Your task to perform on an android device: move an email to a new category in the gmail app Image 0: 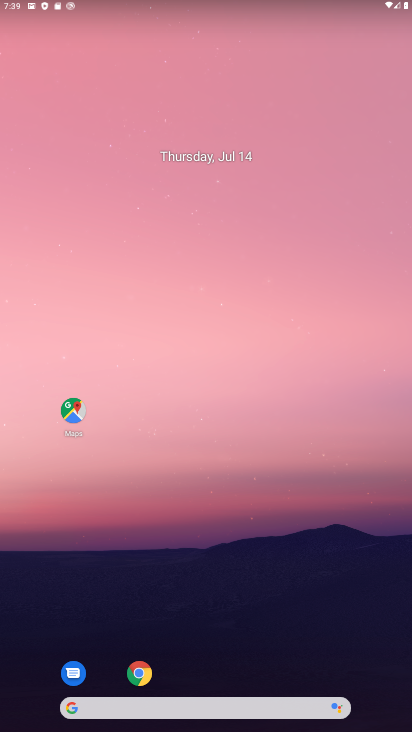
Step 0: click (261, 140)
Your task to perform on an android device: move an email to a new category in the gmail app Image 1: 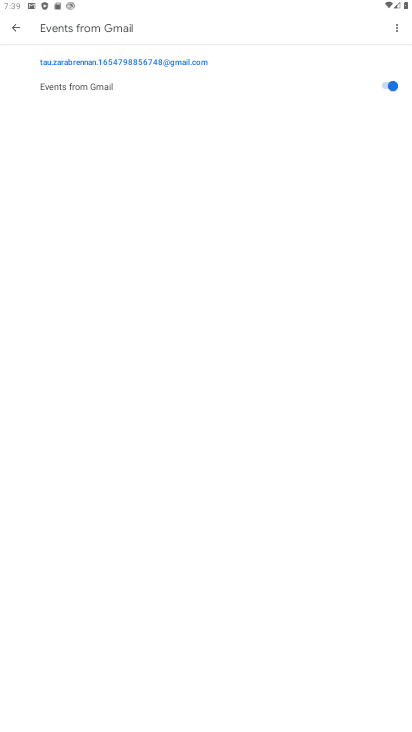
Step 1: drag from (258, 504) to (239, 187)
Your task to perform on an android device: move an email to a new category in the gmail app Image 2: 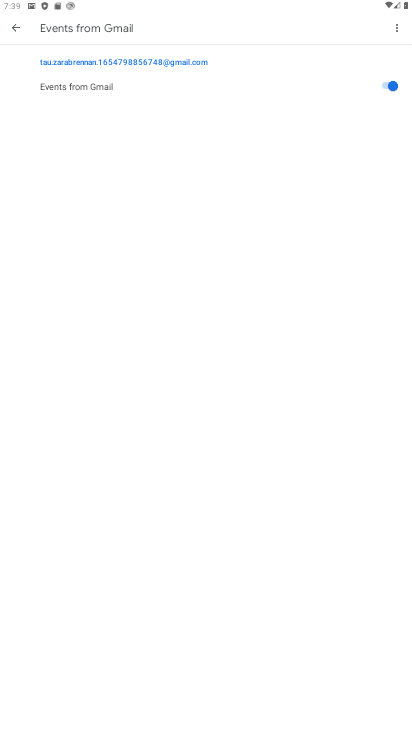
Step 2: drag from (152, 599) to (211, 178)
Your task to perform on an android device: move an email to a new category in the gmail app Image 3: 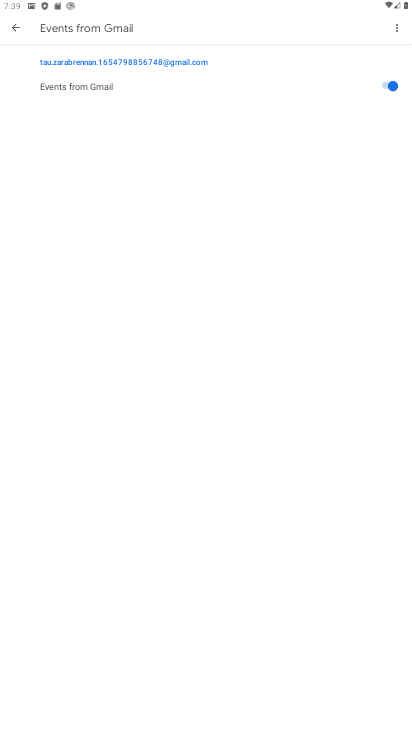
Step 3: drag from (183, 513) to (290, 176)
Your task to perform on an android device: move an email to a new category in the gmail app Image 4: 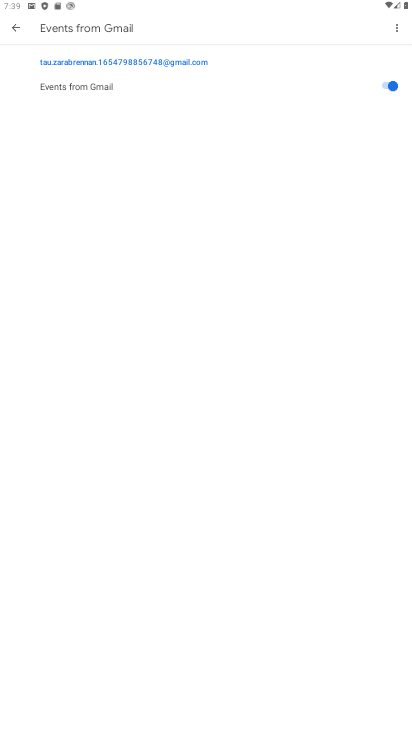
Step 4: press home button
Your task to perform on an android device: move an email to a new category in the gmail app Image 5: 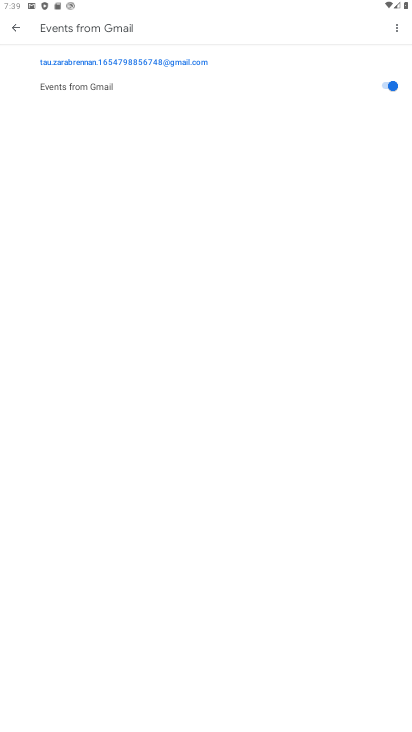
Step 5: drag from (79, 545) to (106, 1)
Your task to perform on an android device: move an email to a new category in the gmail app Image 6: 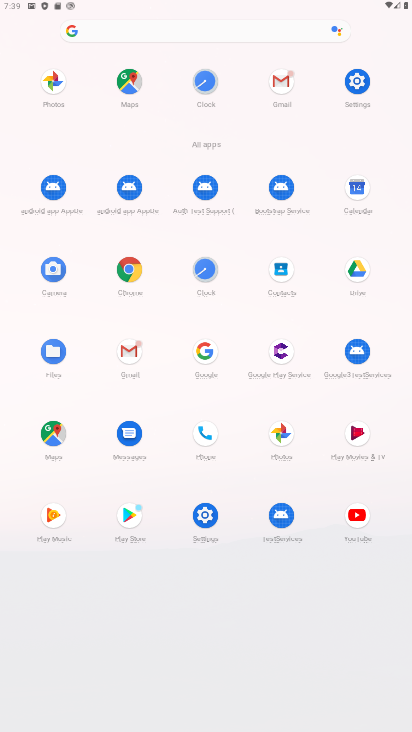
Step 6: click (126, 357)
Your task to perform on an android device: move an email to a new category in the gmail app Image 7: 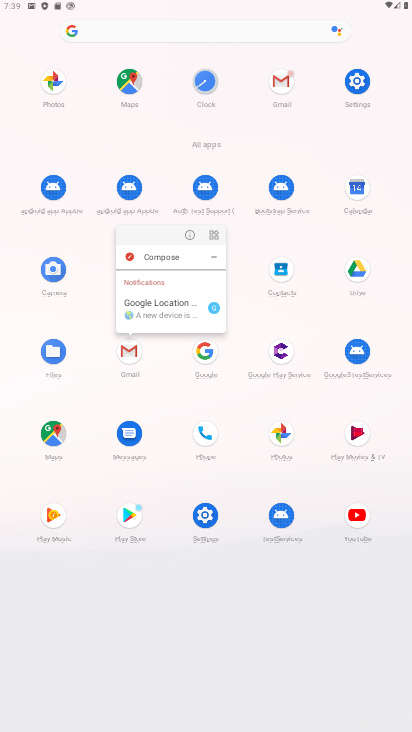
Step 7: click (192, 233)
Your task to perform on an android device: move an email to a new category in the gmail app Image 8: 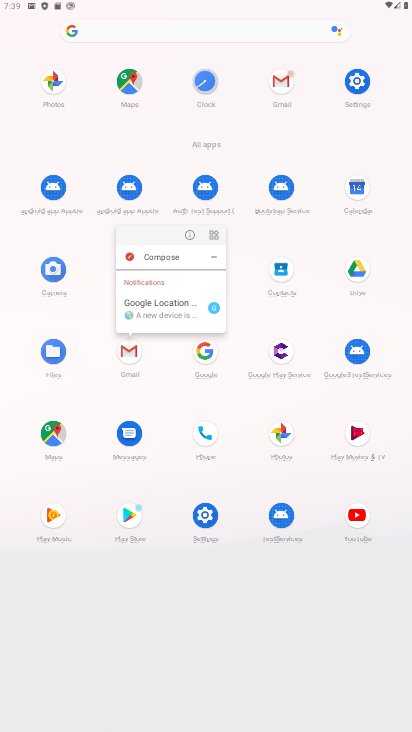
Step 8: click (187, 233)
Your task to perform on an android device: move an email to a new category in the gmail app Image 9: 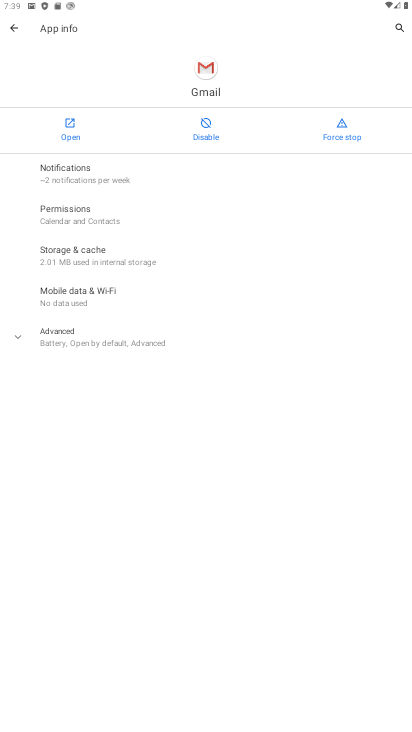
Step 9: click (71, 123)
Your task to perform on an android device: move an email to a new category in the gmail app Image 10: 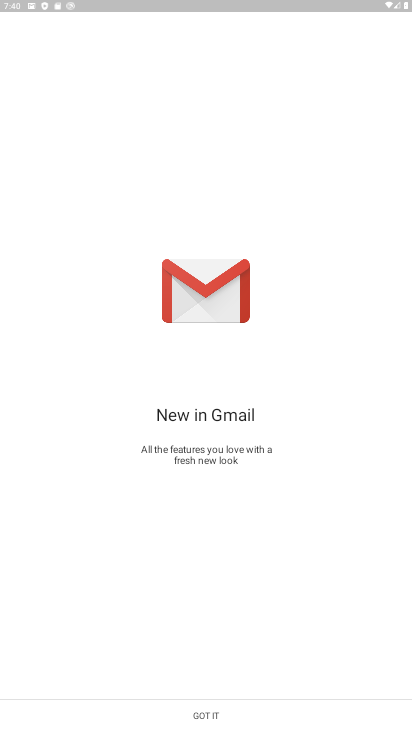
Step 10: click (200, 710)
Your task to perform on an android device: move an email to a new category in the gmail app Image 11: 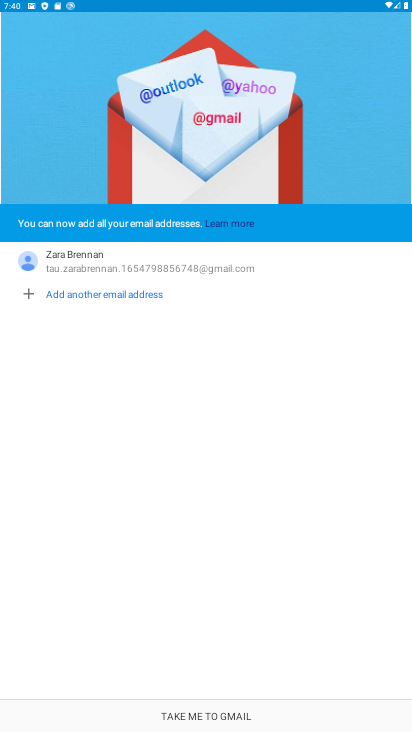
Step 11: click (175, 725)
Your task to perform on an android device: move an email to a new category in the gmail app Image 12: 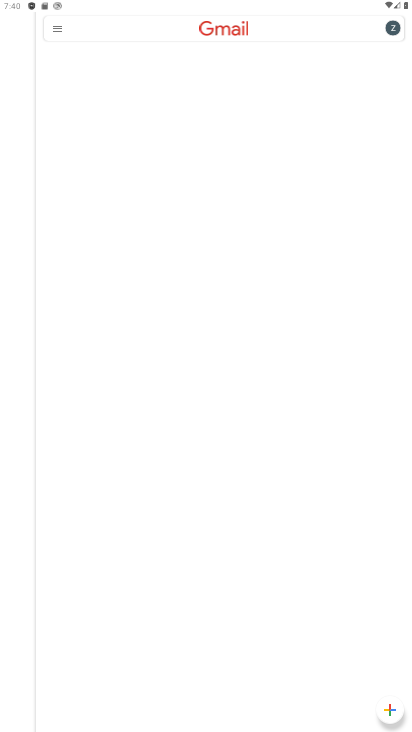
Step 12: drag from (188, 697) to (237, 352)
Your task to perform on an android device: move an email to a new category in the gmail app Image 13: 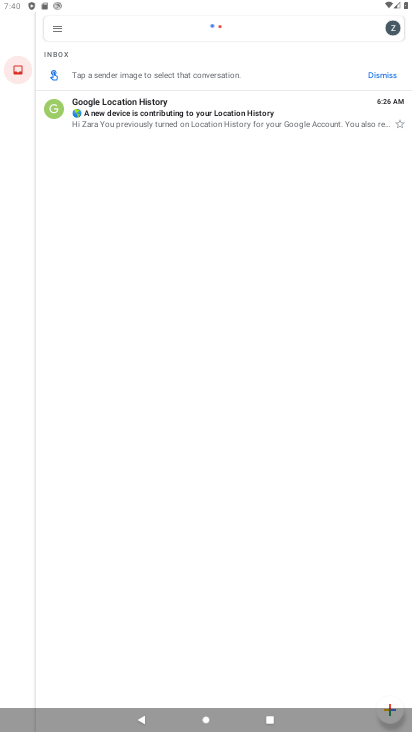
Step 13: drag from (216, 506) to (243, 278)
Your task to perform on an android device: move an email to a new category in the gmail app Image 14: 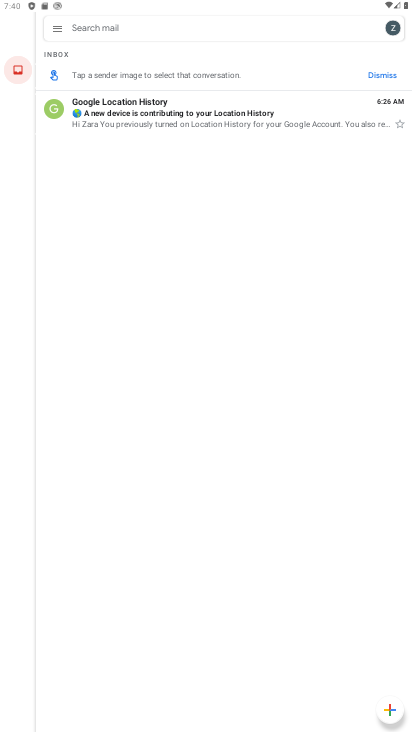
Step 14: drag from (191, 518) to (228, 253)
Your task to perform on an android device: move an email to a new category in the gmail app Image 15: 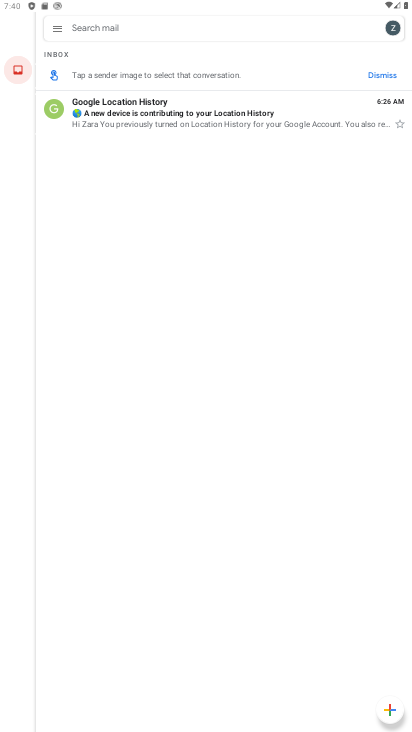
Step 15: click (215, 99)
Your task to perform on an android device: move an email to a new category in the gmail app Image 16: 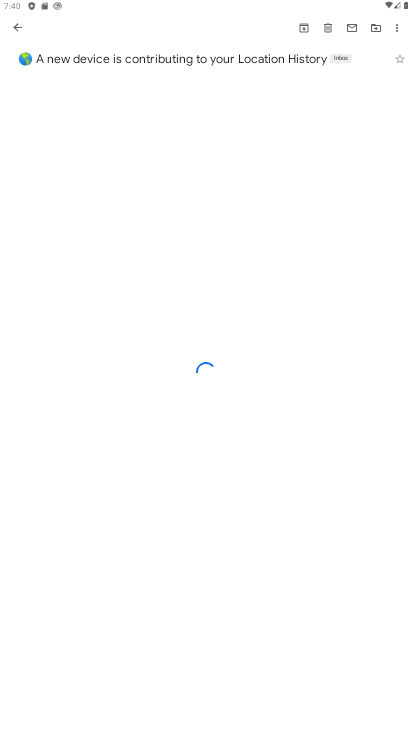
Step 16: click (401, 56)
Your task to perform on an android device: move an email to a new category in the gmail app Image 17: 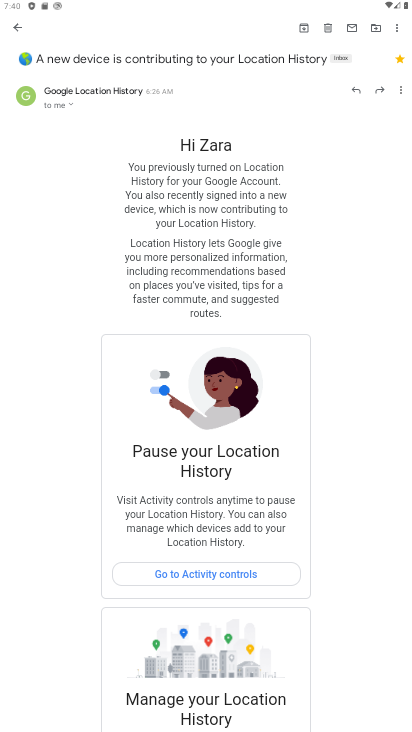
Step 17: task complete